Your task to perform on an android device: turn off picture-in-picture Image 0: 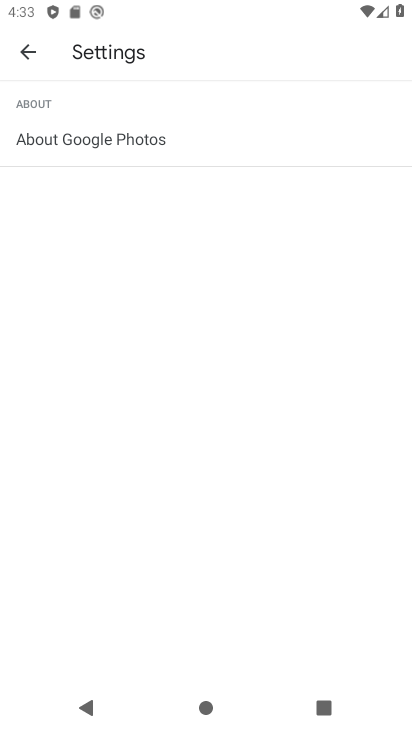
Step 0: press back button
Your task to perform on an android device: turn off picture-in-picture Image 1: 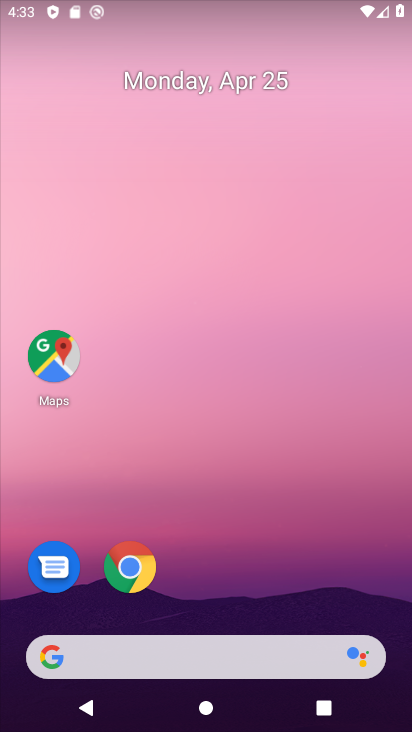
Step 1: drag from (175, 540) to (272, 36)
Your task to perform on an android device: turn off picture-in-picture Image 2: 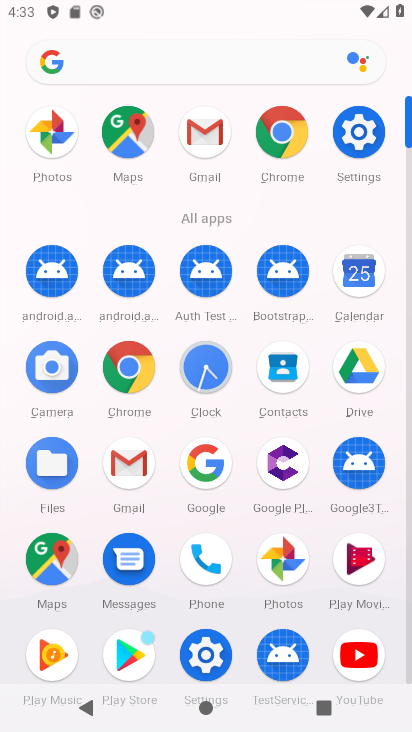
Step 2: click (364, 125)
Your task to perform on an android device: turn off picture-in-picture Image 3: 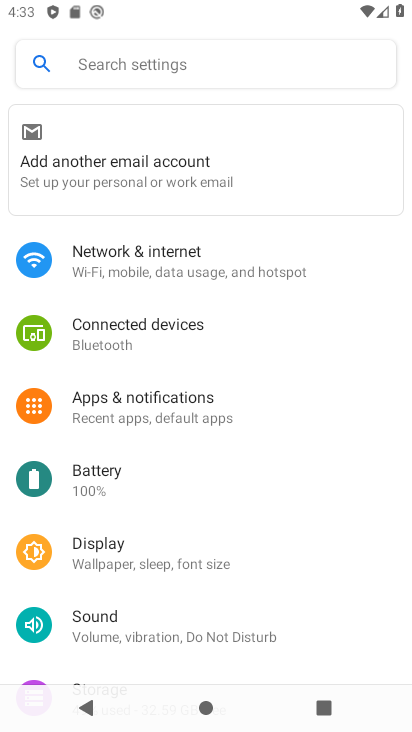
Step 3: click (172, 411)
Your task to perform on an android device: turn off picture-in-picture Image 4: 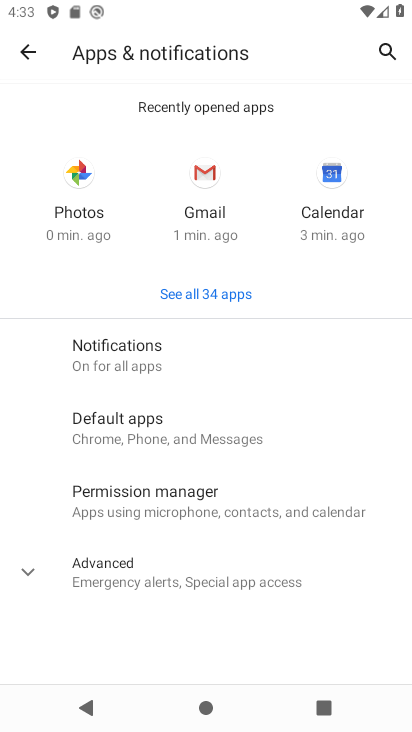
Step 4: click (163, 351)
Your task to perform on an android device: turn off picture-in-picture Image 5: 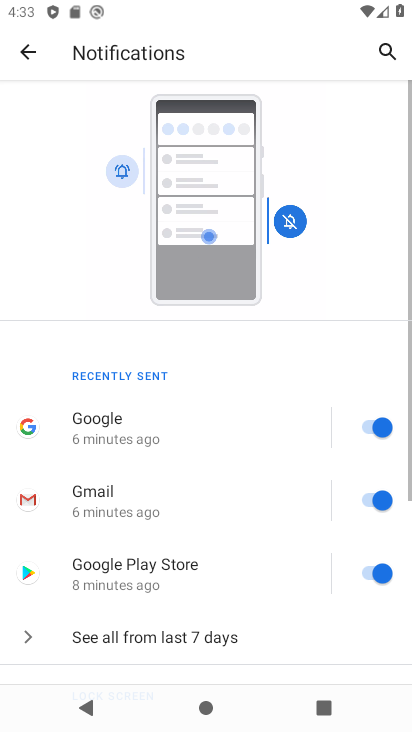
Step 5: click (29, 46)
Your task to perform on an android device: turn off picture-in-picture Image 6: 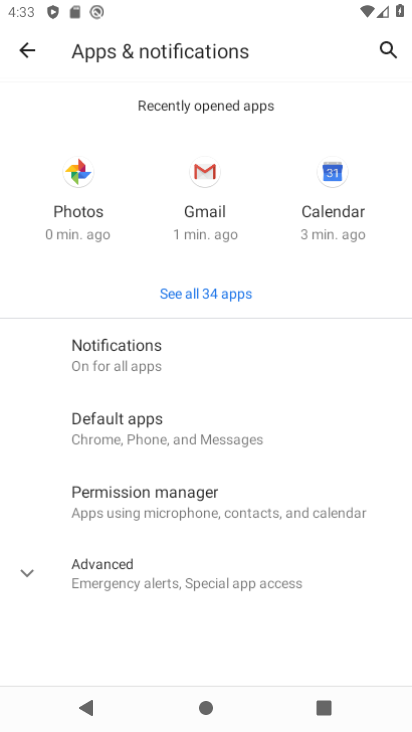
Step 6: drag from (142, 623) to (254, 120)
Your task to perform on an android device: turn off picture-in-picture Image 7: 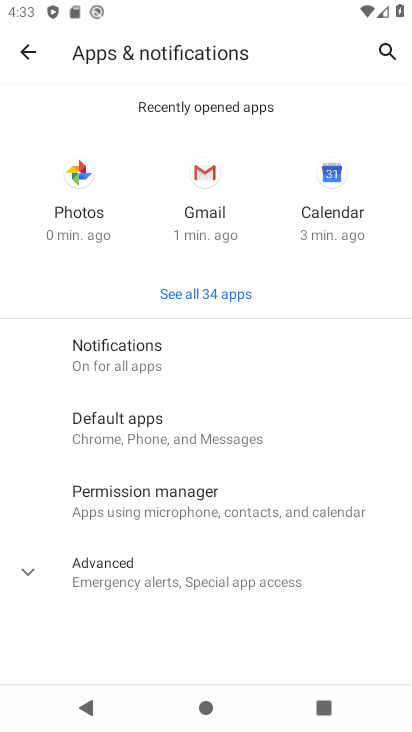
Step 7: click (169, 572)
Your task to perform on an android device: turn off picture-in-picture Image 8: 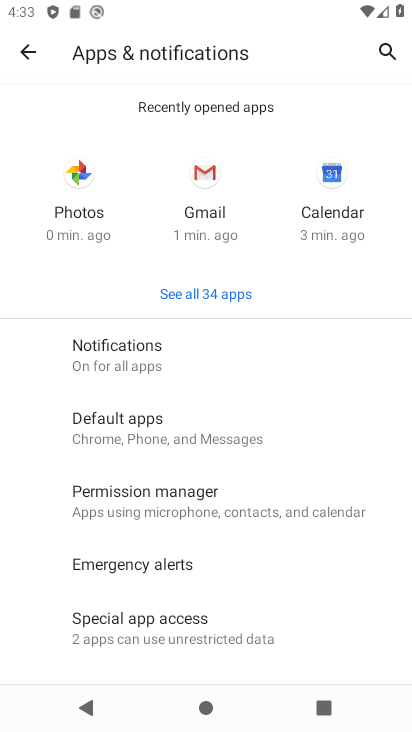
Step 8: drag from (162, 469) to (257, 7)
Your task to perform on an android device: turn off picture-in-picture Image 9: 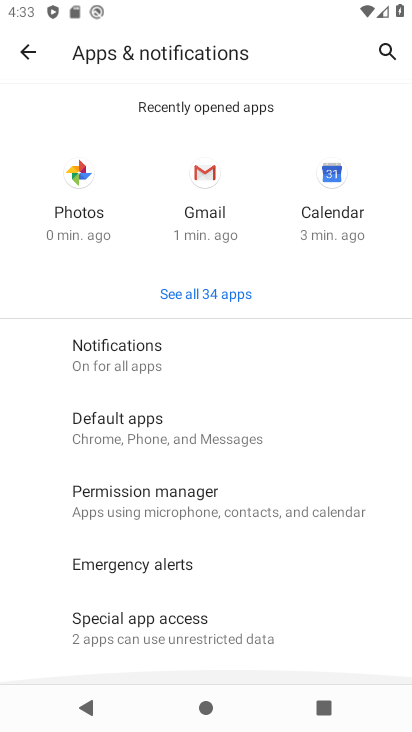
Step 9: click (138, 638)
Your task to perform on an android device: turn off picture-in-picture Image 10: 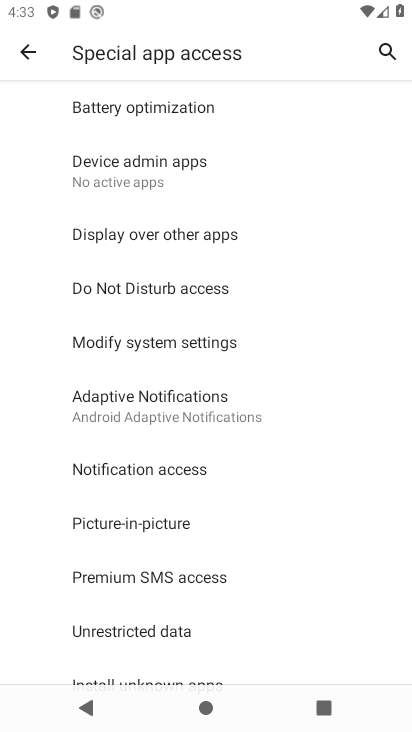
Step 10: click (98, 524)
Your task to perform on an android device: turn off picture-in-picture Image 11: 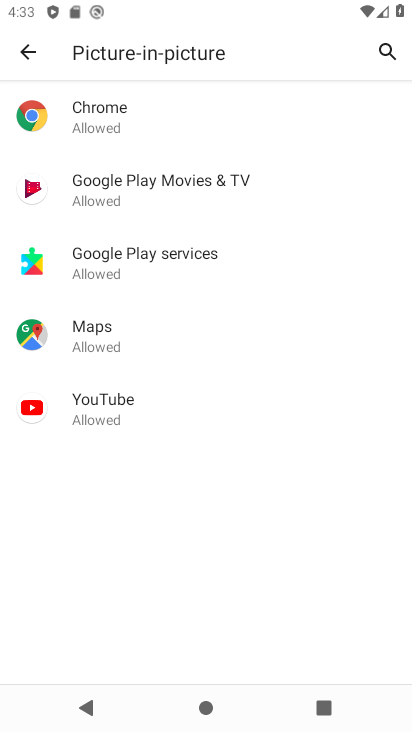
Step 11: click (124, 112)
Your task to perform on an android device: turn off picture-in-picture Image 12: 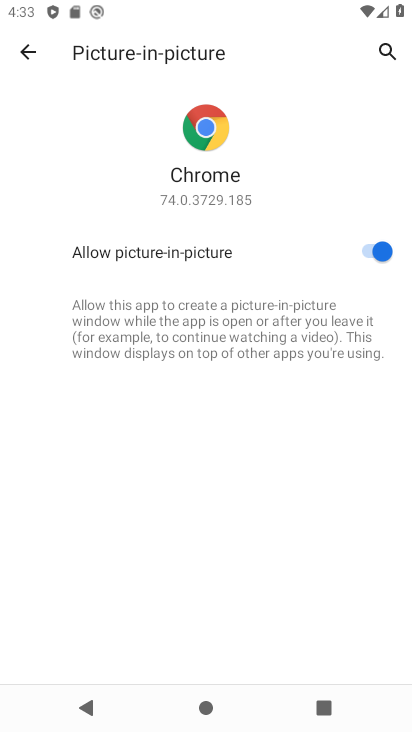
Step 12: click (371, 248)
Your task to perform on an android device: turn off picture-in-picture Image 13: 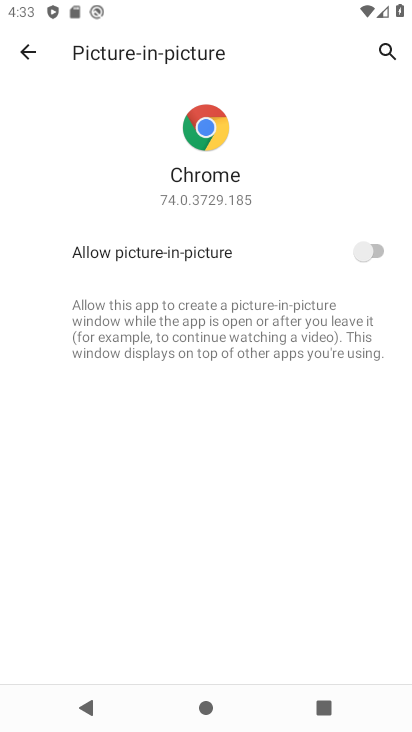
Step 13: task complete